Your task to perform on an android device: change notifications settings Image 0: 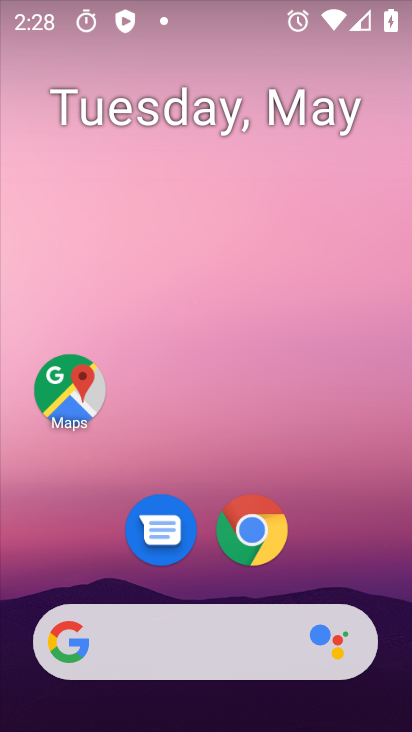
Step 0: drag from (213, 558) to (119, 16)
Your task to perform on an android device: change notifications settings Image 1: 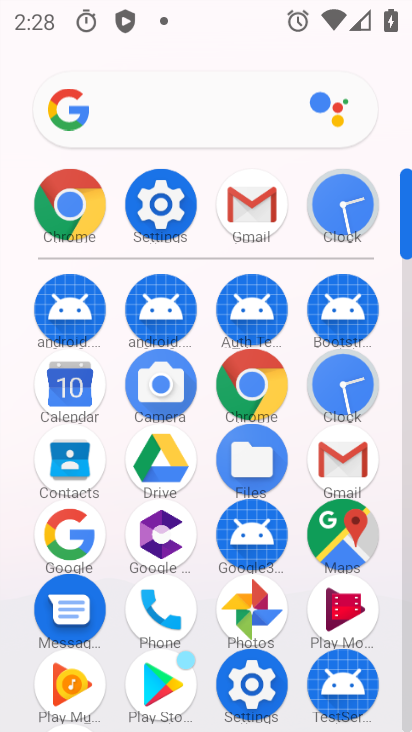
Step 1: click (173, 211)
Your task to perform on an android device: change notifications settings Image 2: 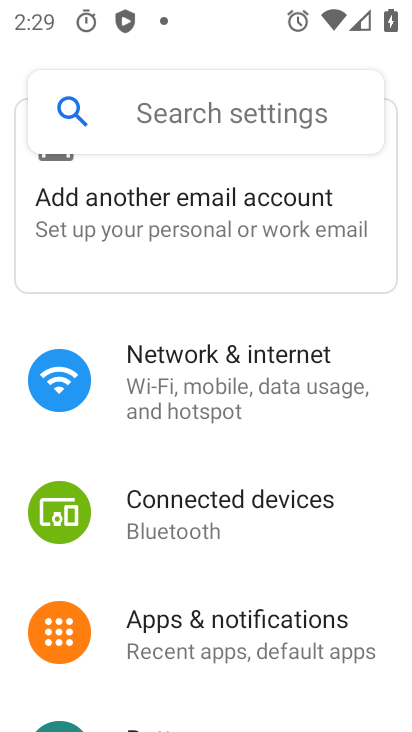
Step 2: click (237, 634)
Your task to perform on an android device: change notifications settings Image 3: 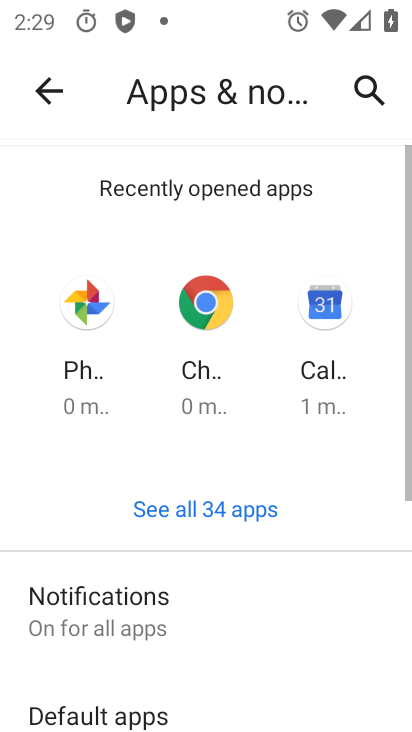
Step 3: click (173, 587)
Your task to perform on an android device: change notifications settings Image 4: 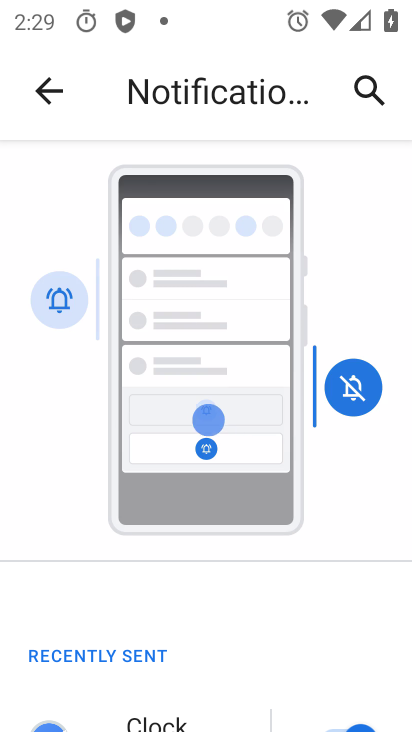
Step 4: task complete